Your task to perform on an android device: add a label to a message in the gmail app Image 0: 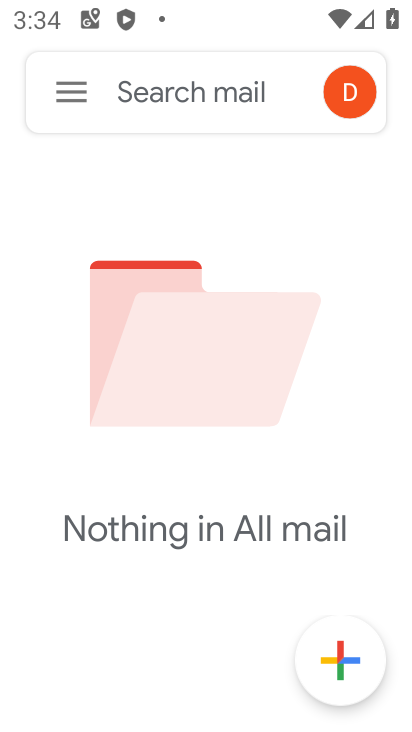
Step 0: click (71, 94)
Your task to perform on an android device: add a label to a message in the gmail app Image 1: 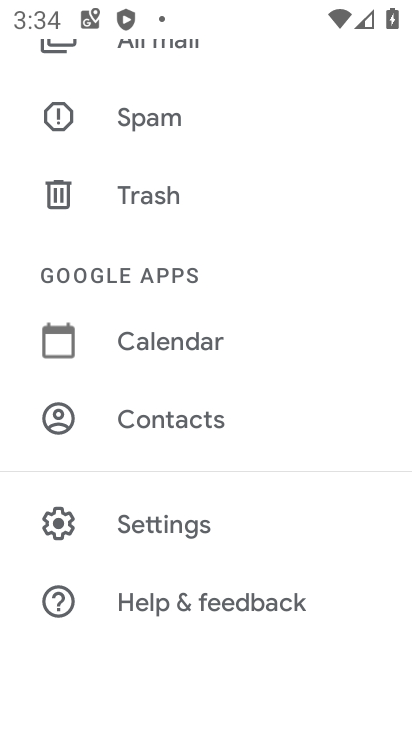
Step 1: drag from (239, 225) to (246, 538)
Your task to perform on an android device: add a label to a message in the gmail app Image 2: 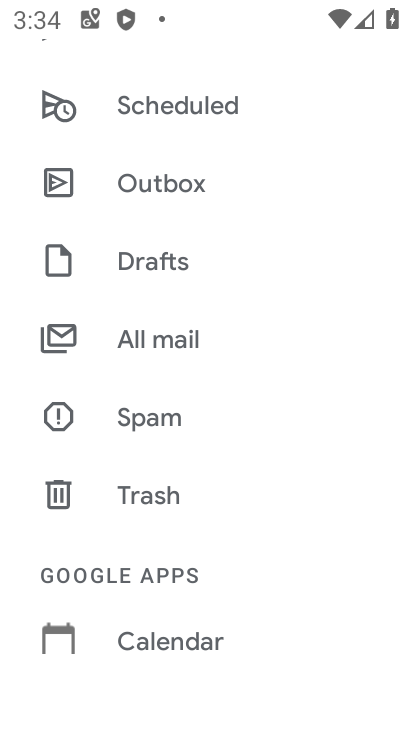
Step 2: click (207, 351)
Your task to perform on an android device: add a label to a message in the gmail app Image 3: 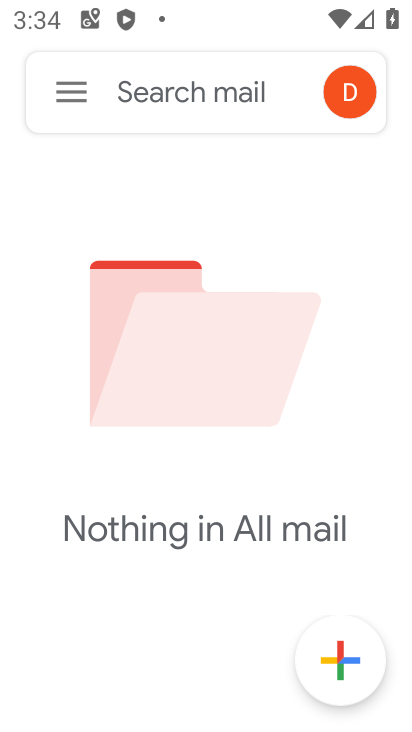
Step 3: task complete